Your task to perform on an android device: Go to Android settings Image 0: 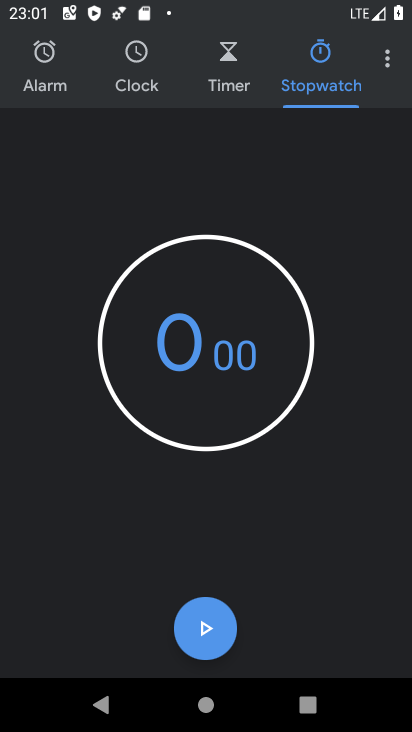
Step 0: press home button
Your task to perform on an android device: Go to Android settings Image 1: 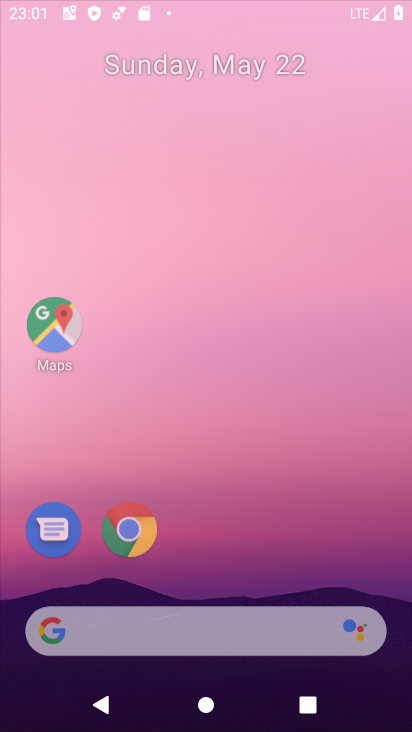
Step 1: drag from (242, 613) to (262, 15)
Your task to perform on an android device: Go to Android settings Image 2: 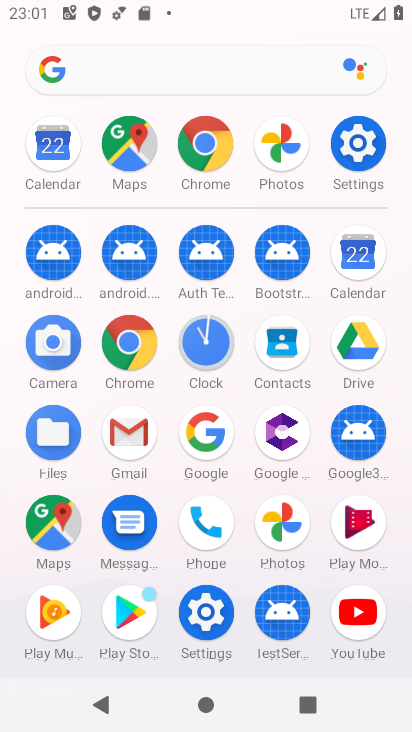
Step 2: click (352, 136)
Your task to perform on an android device: Go to Android settings Image 3: 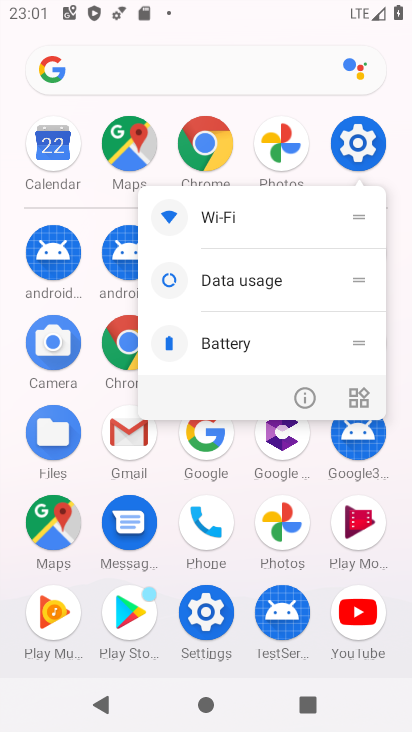
Step 3: click (307, 401)
Your task to perform on an android device: Go to Android settings Image 4: 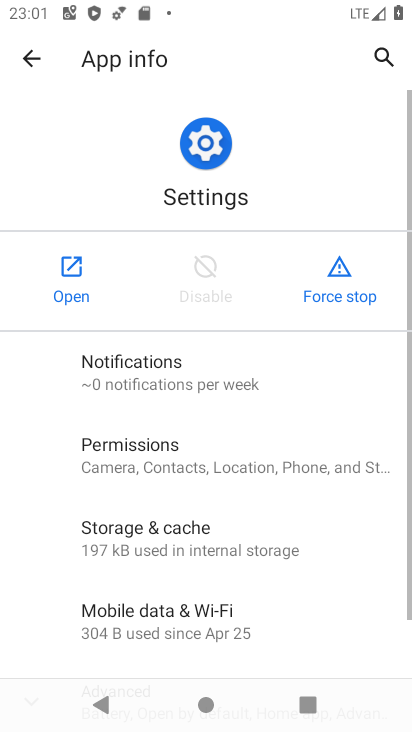
Step 4: click (71, 286)
Your task to perform on an android device: Go to Android settings Image 5: 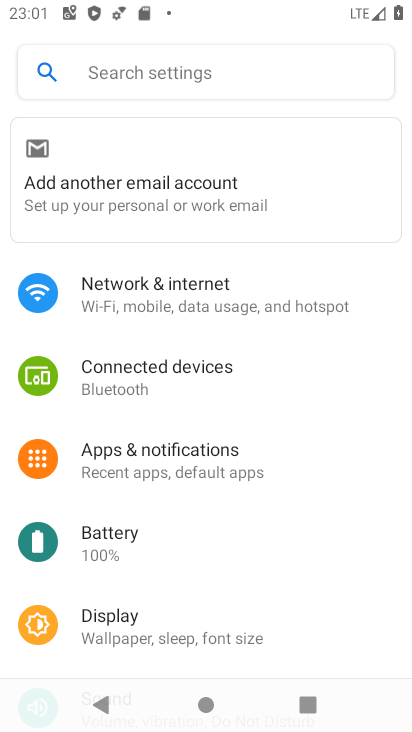
Step 5: drag from (202, 613) to (308, 82)
Your task to perform on an android device: Go to Android settings Image 6: 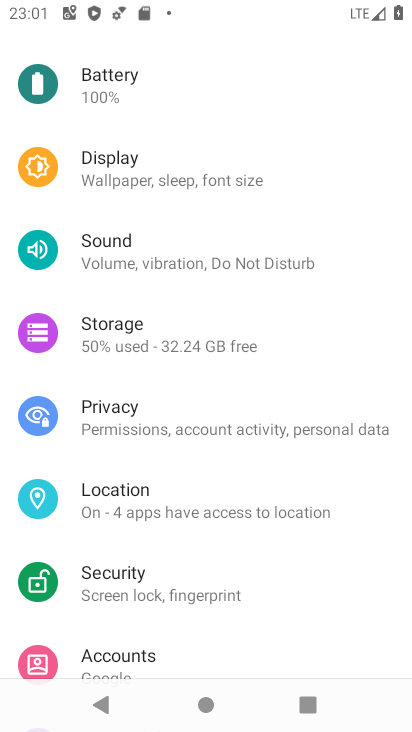
Step 6: drag from (197, 604) to (284, 49)
Your task to perform on an android device: Go to Android settings Image 7: 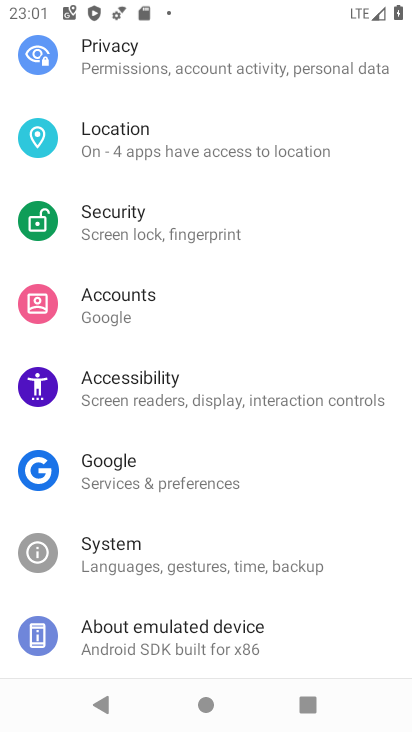
Step 7: click (159, 654)
Your task to perform on an android device: Go to Android settings Image 8: 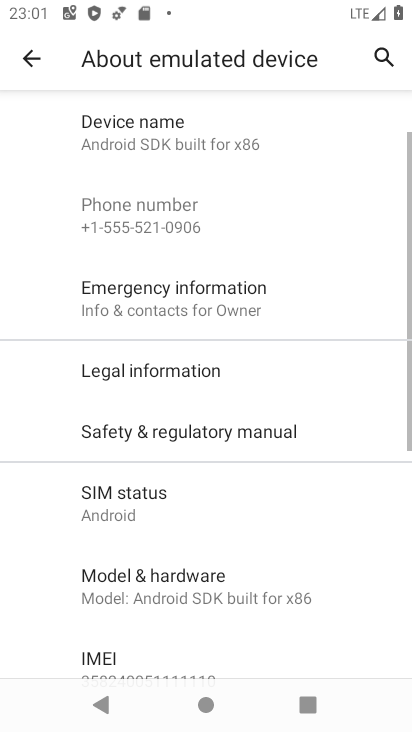
Step 8: drag from (176, 578) to (229, 198)
Your task to perform on an android device: Go to Android settings Image 9: 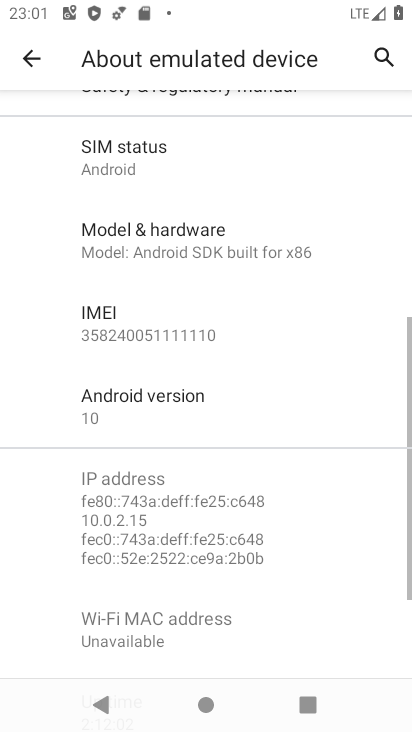
Step 9: click (150, 403)
Your task to perform on an android device: Go to Android settings Image 10: 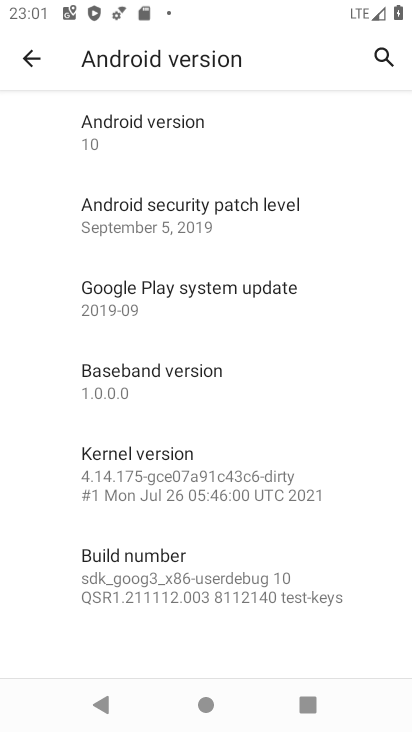
Step 10: drag from (253, 596) to (289, 227)
Your task to perform on an android device: Go to Android settings Image 11: 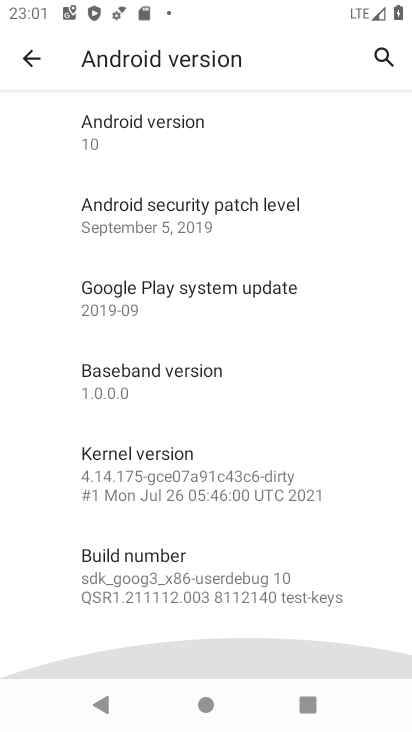
Step 11: drag from (289, 191) to (281, 565)
Your task to perform on an android device: Go to Android settings Image 12: 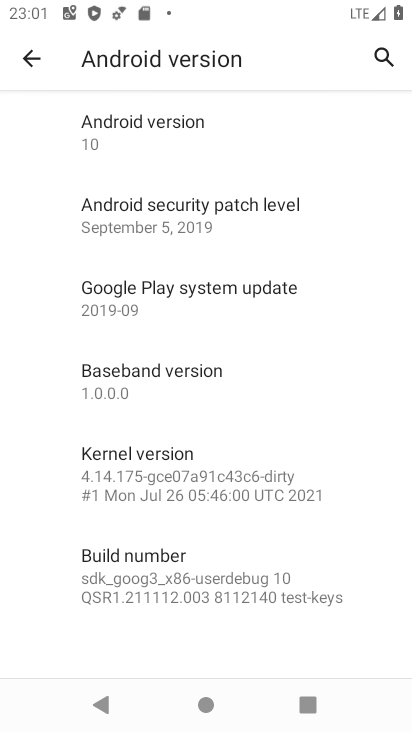
Step 12: click (224, 153)
Your task to perform on an android device: Go to Android settings Image 13: 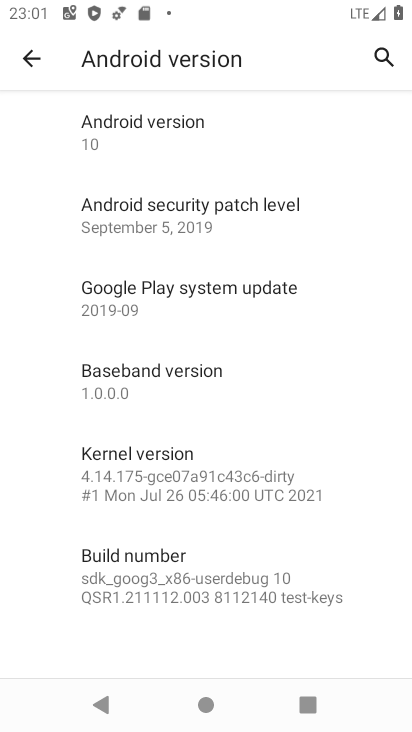
Step 13: task complete